Your task to perform on an android device: Turn off the flashlight Image 0: 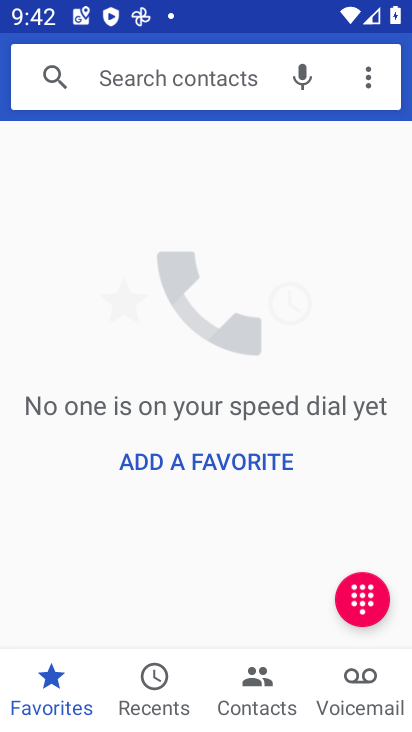
Step 0: task complete